Your task to perform on an android device: Open privacy settings Image 0: 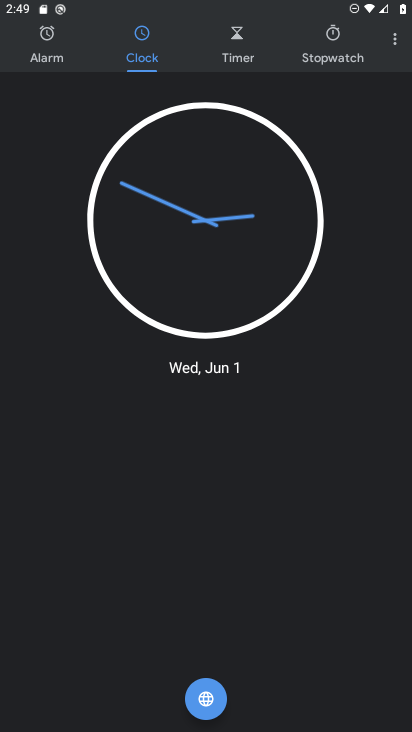
Step 0: press home button
Your task to perform on an android device: Open privacy settings Image 1: 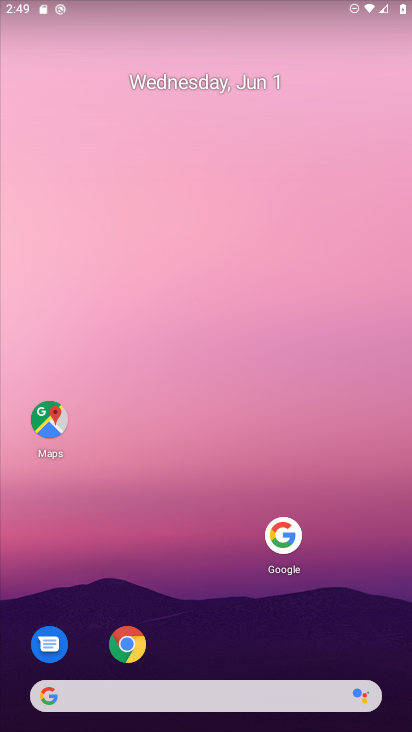
Step 1: drag from (210, 699) to (304, 123)
Your task to perform on an android device: Open privacy settings Image 2: 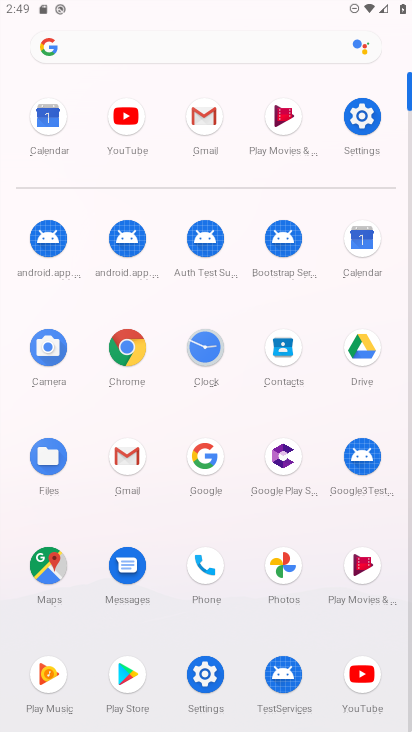
Step 2: click (375, 109)
Your task to perform on an android device: Open privacy settings Image 3: 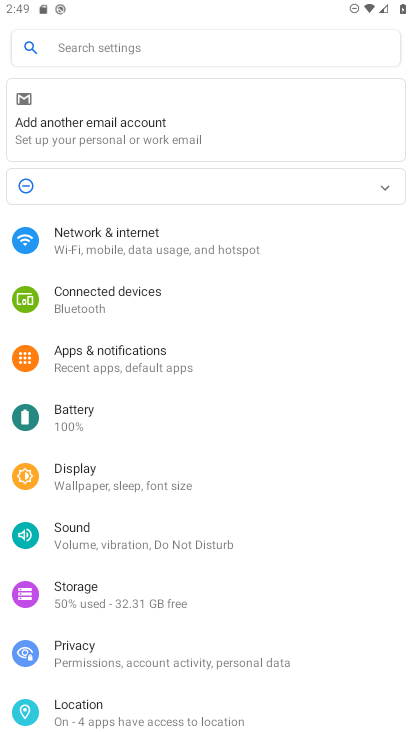
Step 3: click (121, 663)
Your task to perform on an android device: Open privacy settings Image 4: 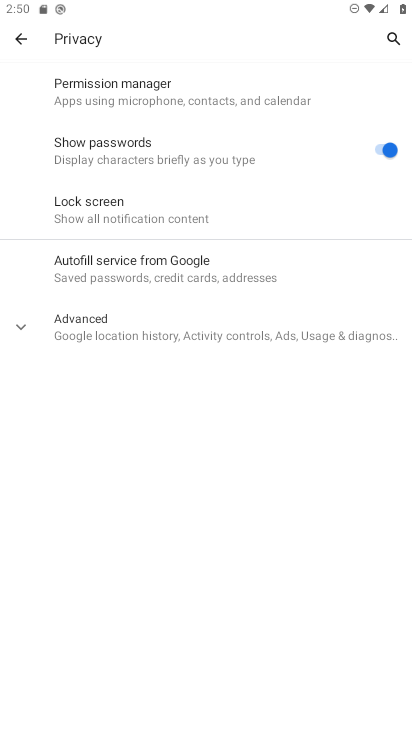
Step 4: task complete